Your task to perform on an android device: read, delete, or share a saved page in the chrome app Image 0: 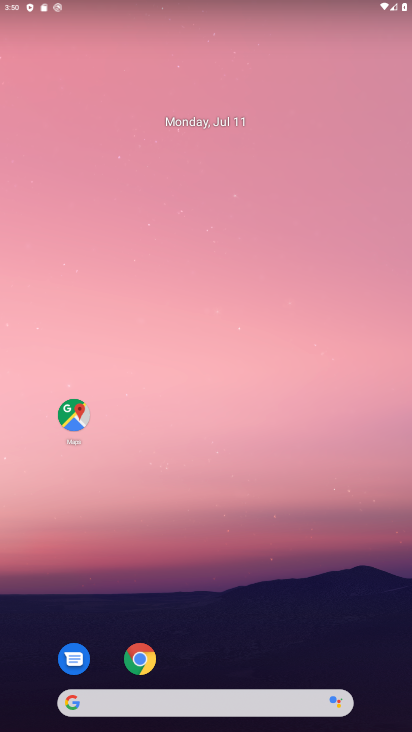
Step 0: click (137, 656)
Your task to perform on an android device: read, delete, or share a saved page in the chrome app Image 1: 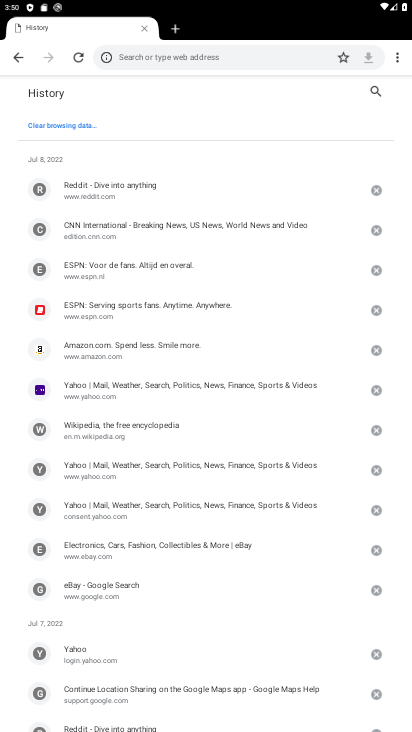
Step 1: task complete